Your task to perform on an android device: turn on airplane mode Image 0: 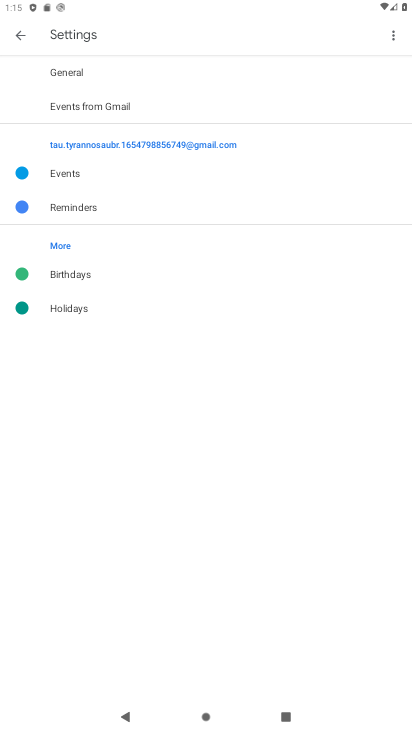
Step 0: press home button
Your task to perform on an android device: turn on airplane mode Image 1: 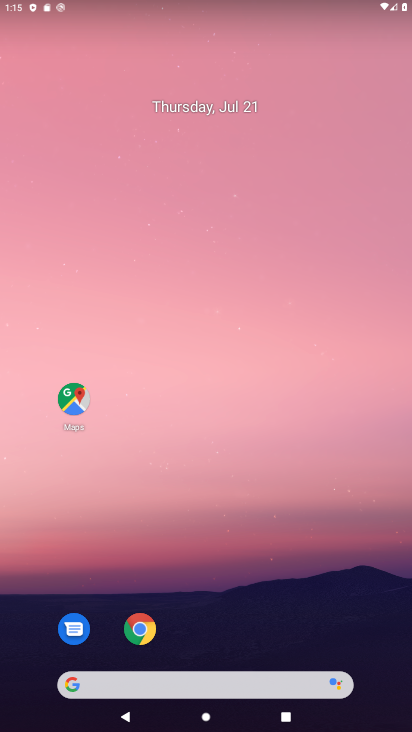
Step 1: drag from (61, 641) to (132, 264)
Your task to perform on an android device: turn on airplane mode Image 2: 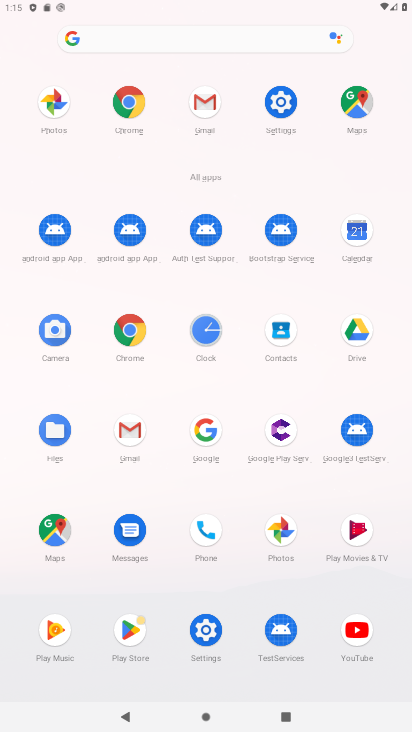
Step 2: click (201, 633)
Your task to perform on an android device: turn on airplane mode Image 3: 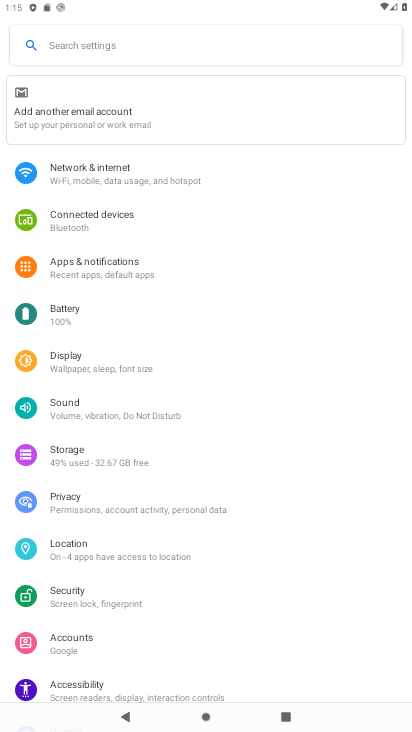
Step 3: click (91, 175)
Your task to perform on an android device: turn on airplane mode Image 4: 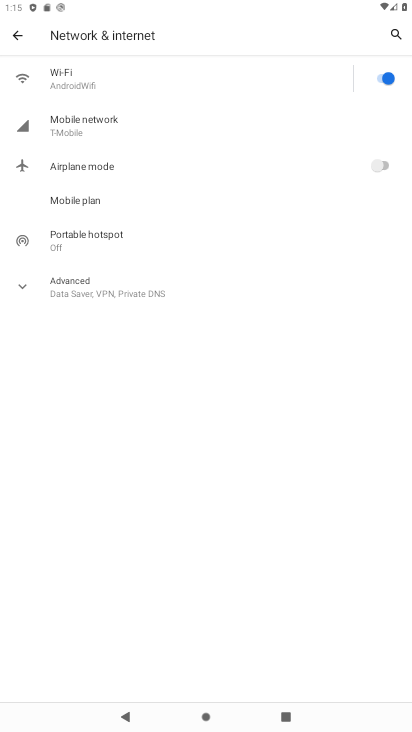
Step 4: click (380, 159)
Your task to perform on an android device: turn on airplane mode Image 5: 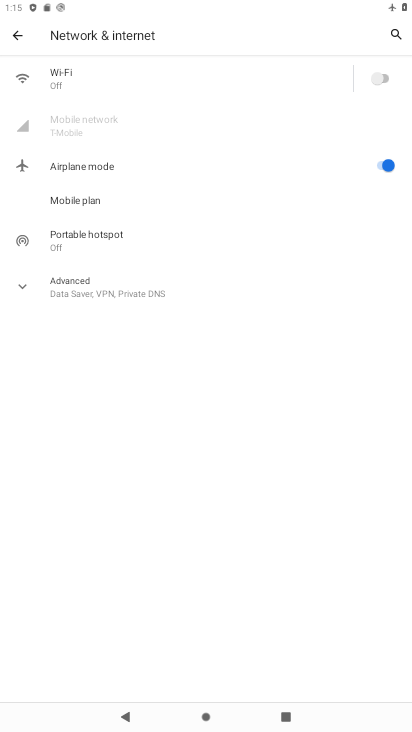
Step 5: task complete